Your task to perform on an android device: Turn off the flashlight Image 0: 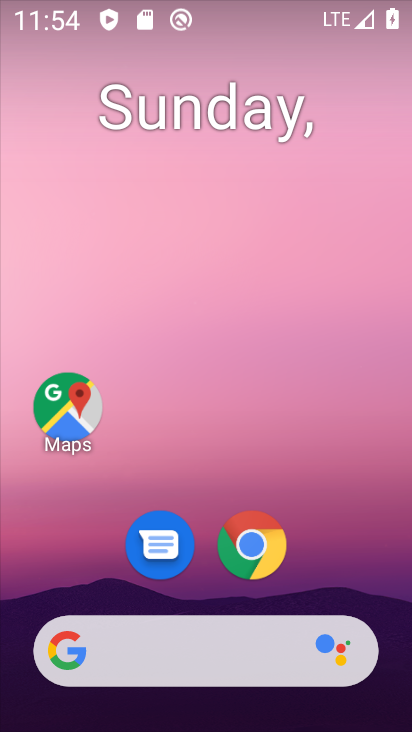
Step 0: drag from (366, 588) to (357, 196)
Your task to perform on an android device: Turn off the flashlight Image 1: 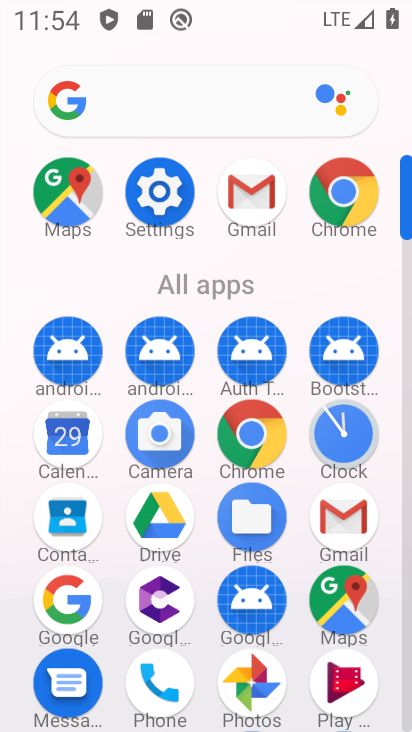
Step 1: click (164, 221)
Your task to perform on an android device: Turn off the flashlight Image 2: 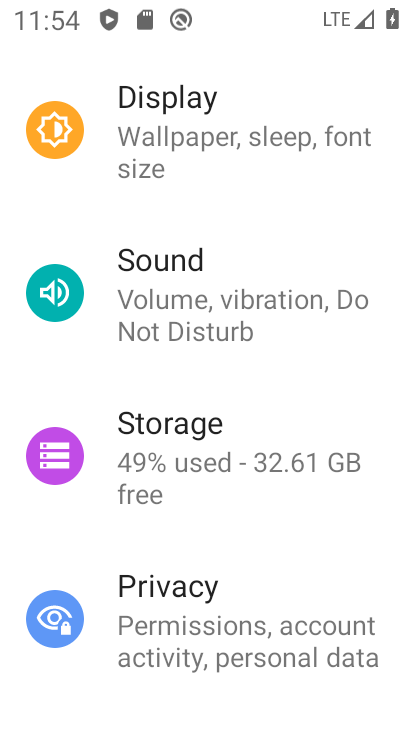
Step 2: press home button
Your task to perform on an android device: Turn off the flashlight Image 3: 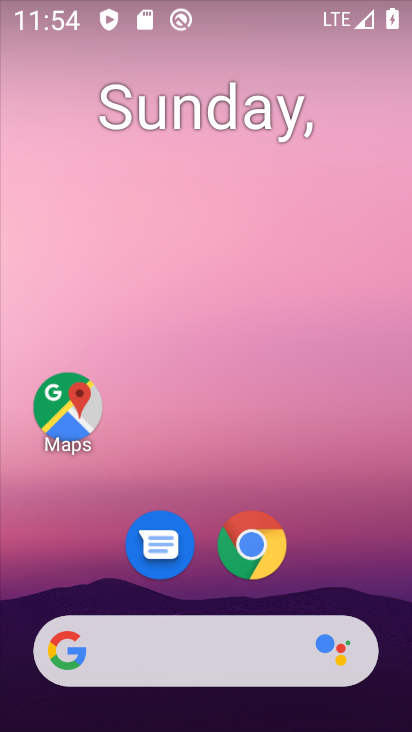
Step 3: drag from (238, 3) to (259, 418)
Your task to perform on an android device: Turn off the flashlight Image 4: 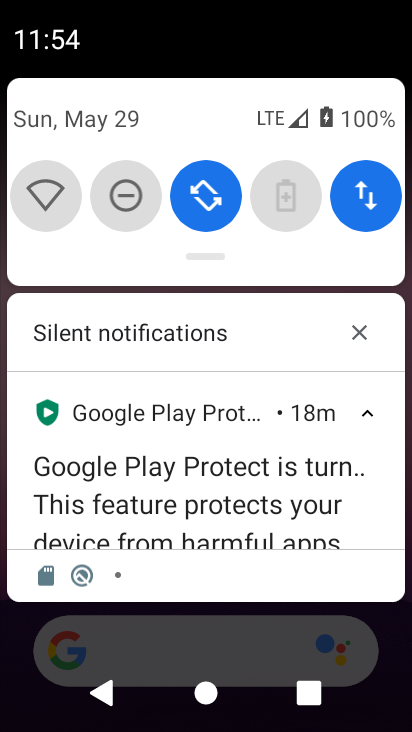
Step 4: drag from (225, 95) to (247, 418)
Your task to perform on an android device: Turn off the flashlight Image 5: 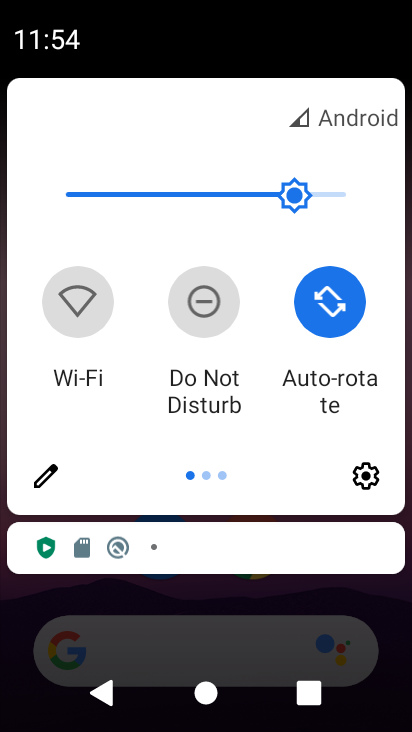
Step 5: click (38, 483)
Your task to perform on an android device: Turn off the flashlight Image 6: 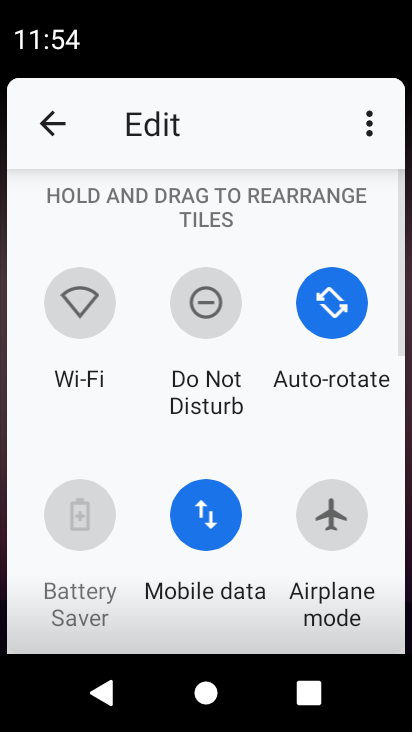
Step 6: task complete